Your task to perform on an android device: Open the phone app and click the voicemail tab. Image 0: 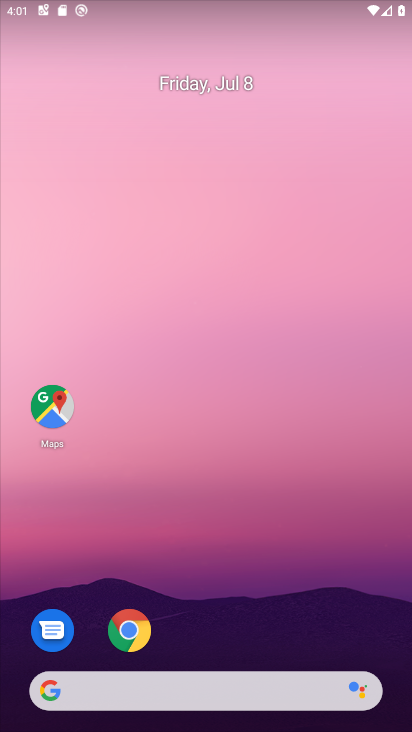
Step 0: drag from (281, 606) to (273, 122)
Your task to perform on an android device: Open the phone app and click the voicemail tab. Image 1: 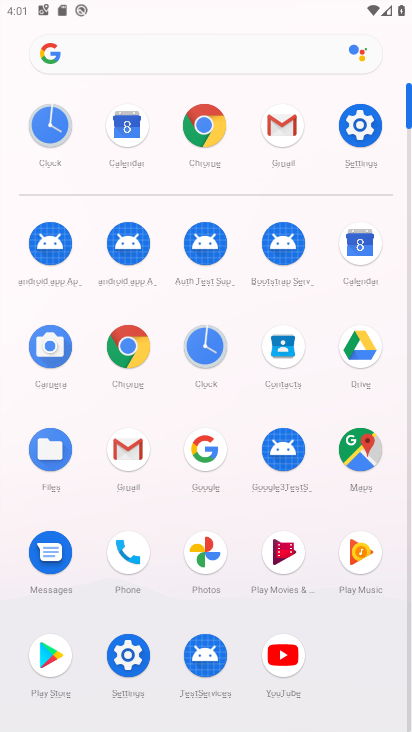
Step 1: click (120, 549)
Your task to perform on an android device: Open the phone app and click the voicemail tab. Image 2: 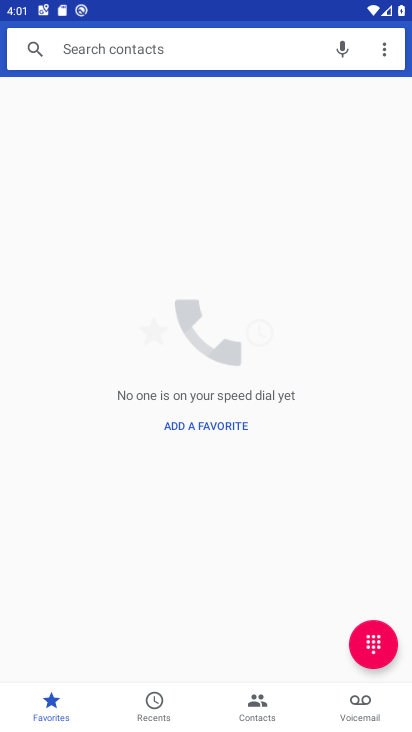
Step 2: click (367, 711)
Your task to perform on an android device: Open the phone app and click the voicemail tab. Image 3: 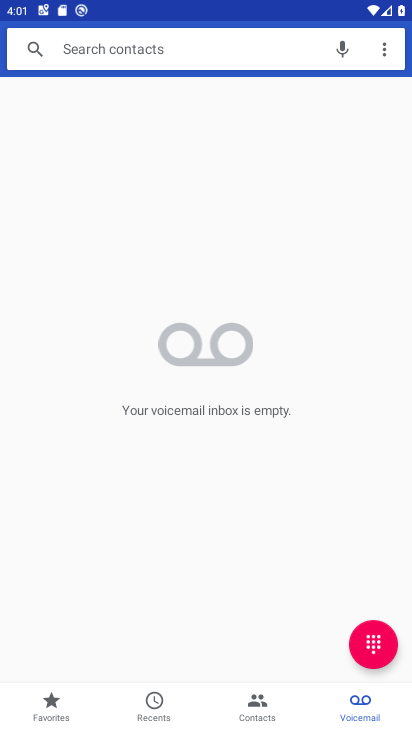
Step 3: task complete